Your task to perform on an android device: Search for macbook pro 15 inch on walmart, select the first entry, and add it to the cart. Image 0: 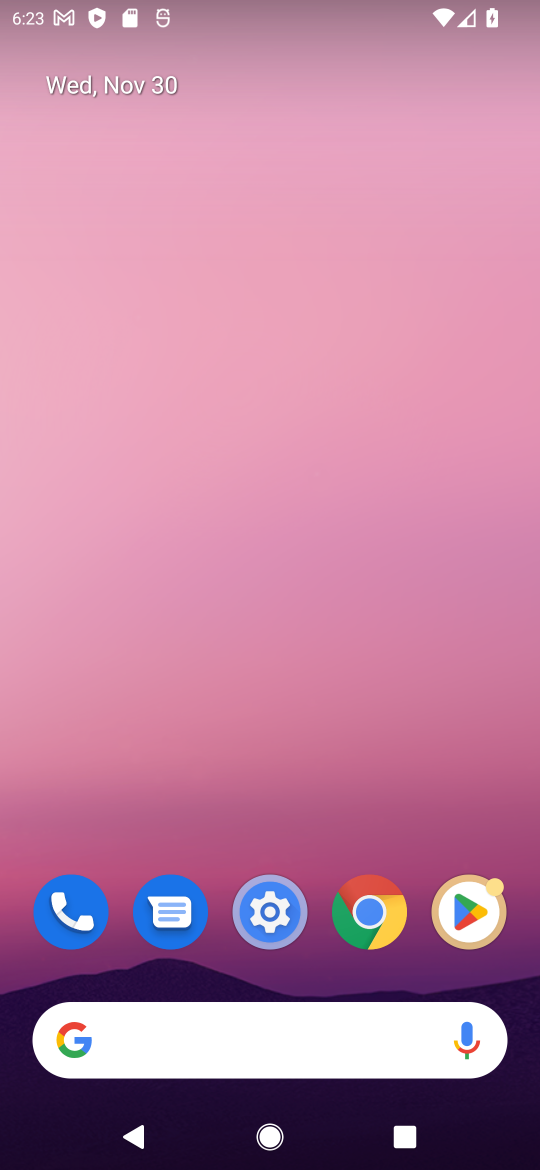
Step 0: click (247, 1026)
Your task to perform on an android device: Search for macbook pro 15 inch on walmart, select the first entry, and add it to the cart. Image 1: 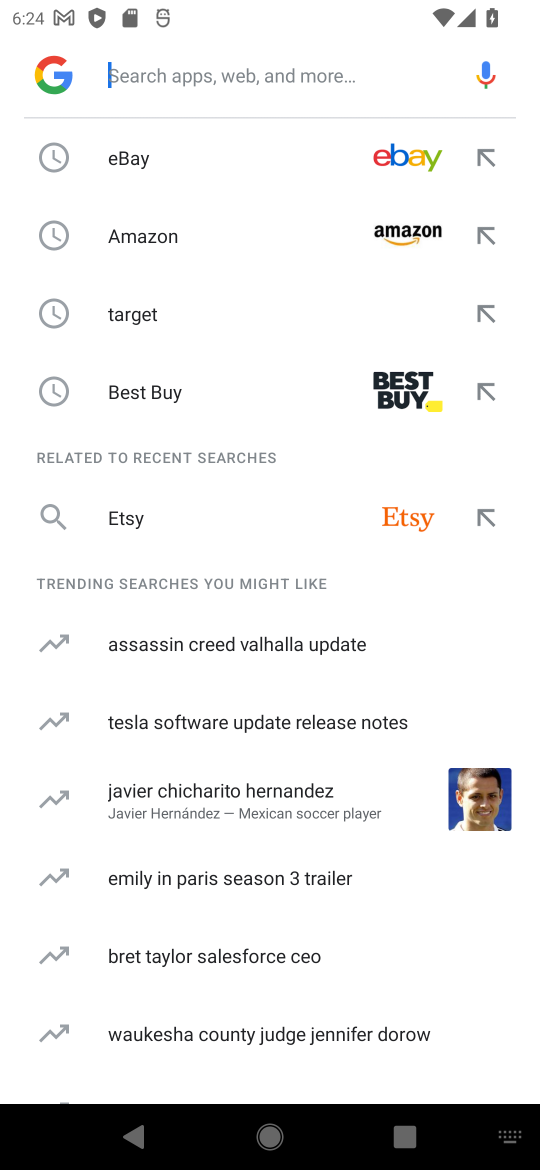
Step 1: type "walmart.com"
Your task to perform on an android device: Search for macbook pro 15 inch on walmart, select the first entry, and add it to the cart. Image 2: 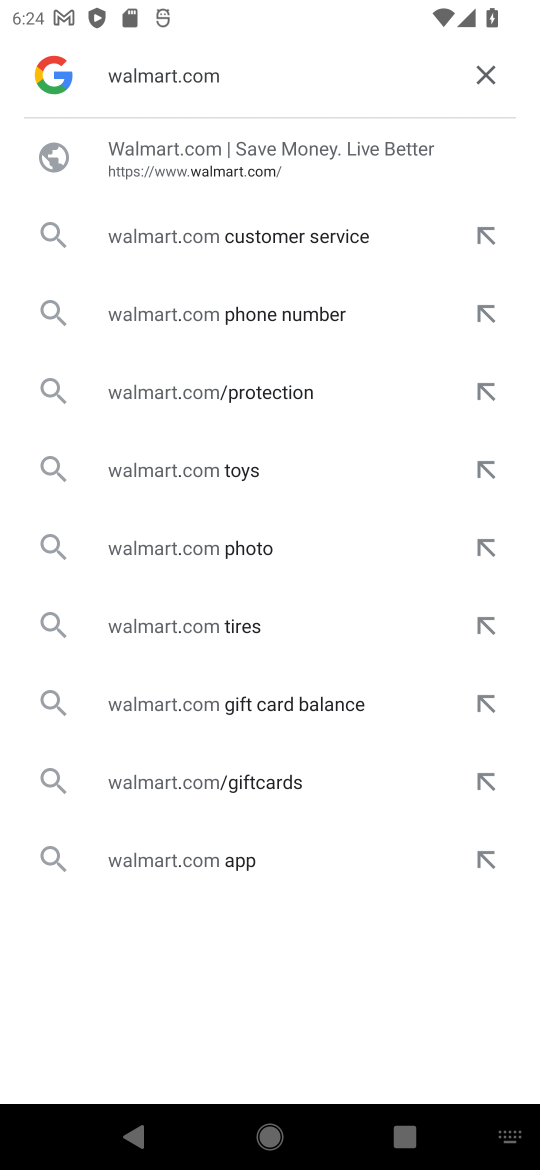
Step 2: click (214, 147)
Your task to perform on an android device: Search for macbook pro 15 inch on walmart, select the first entry, and add it to the cart. Image 3: 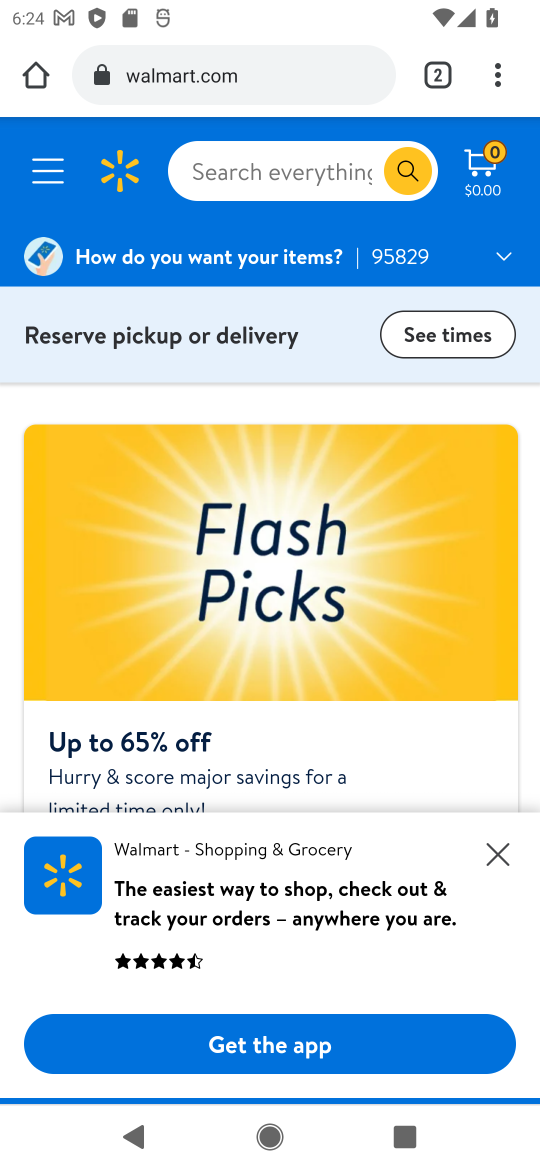
Step 3: click (319, 169)
Your task to perform on an android device: Search for macbook pro 15 inch on walmart, select the first entry, and add it to the cart. Image 4: 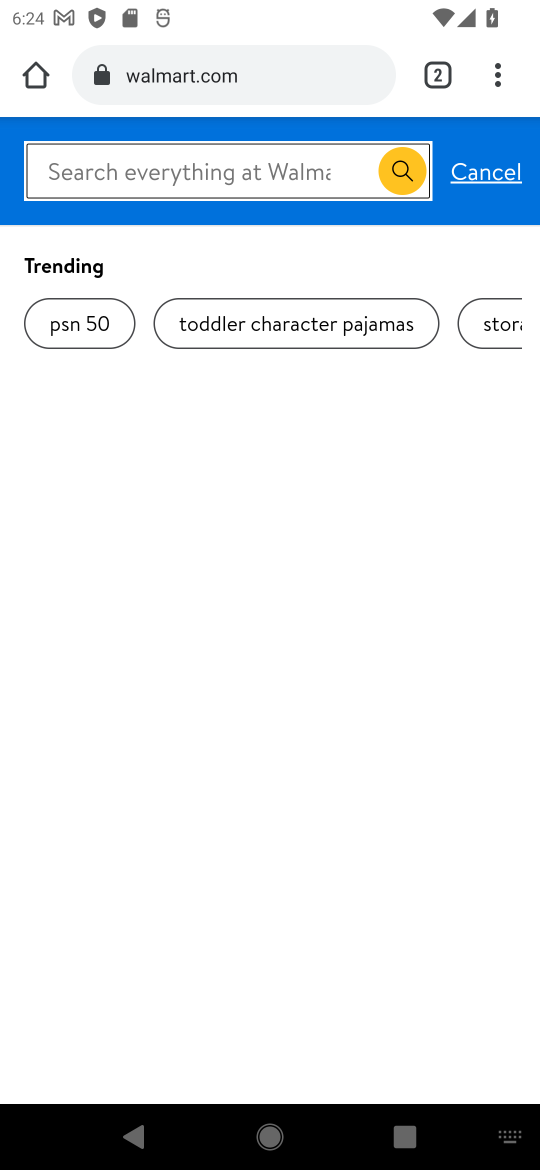
Step 4: type " macbook pro 15 inch"
Your task to perform on an android device: Search for macbook pro 15 inch on walmart, select the first entry, and add it to the cart. Image 5: 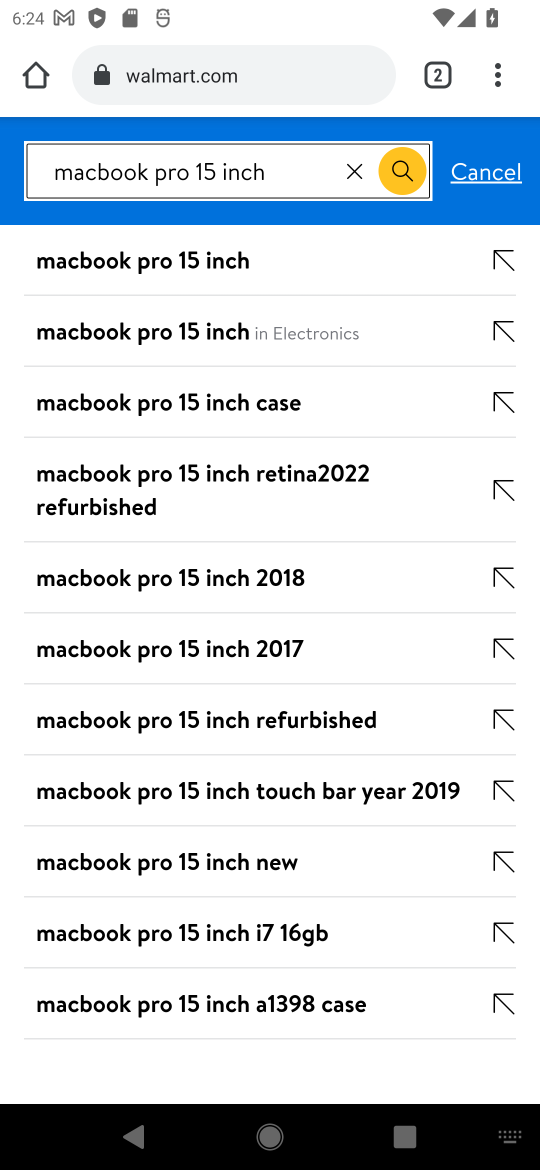
Step 5: click (250, 267)
Your task to perform on an android device: Search for macbook pro 15 inch on walmart, select the first entry, and add it to the cart. Image 6: 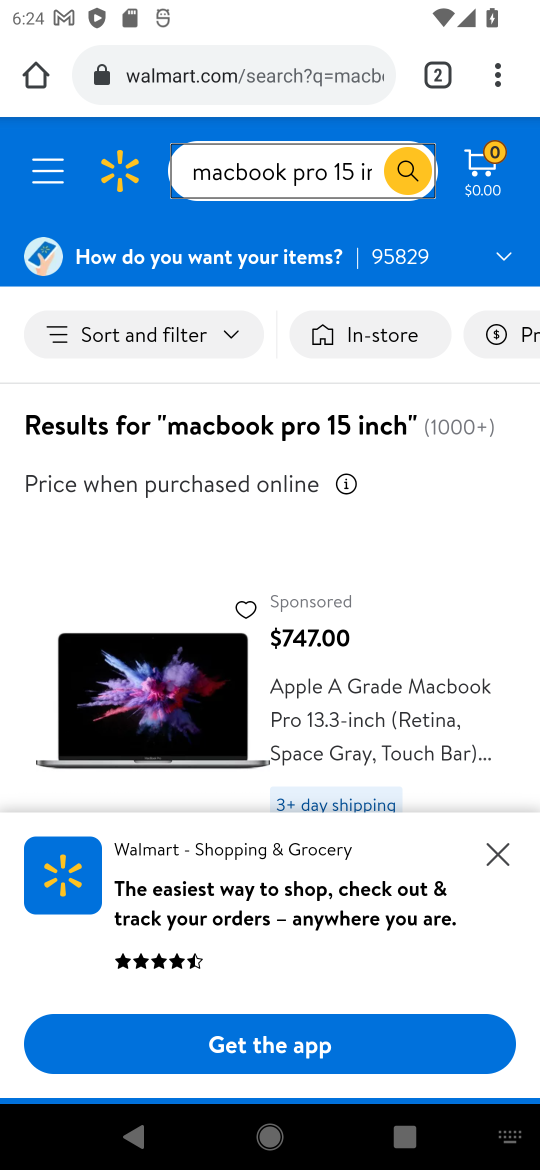
Step 6: click (501, 839)
Your task to perform on an android device: Search for macbook pro 15 inch on walmart, select the first entry, and add it to the cart. Image 7: 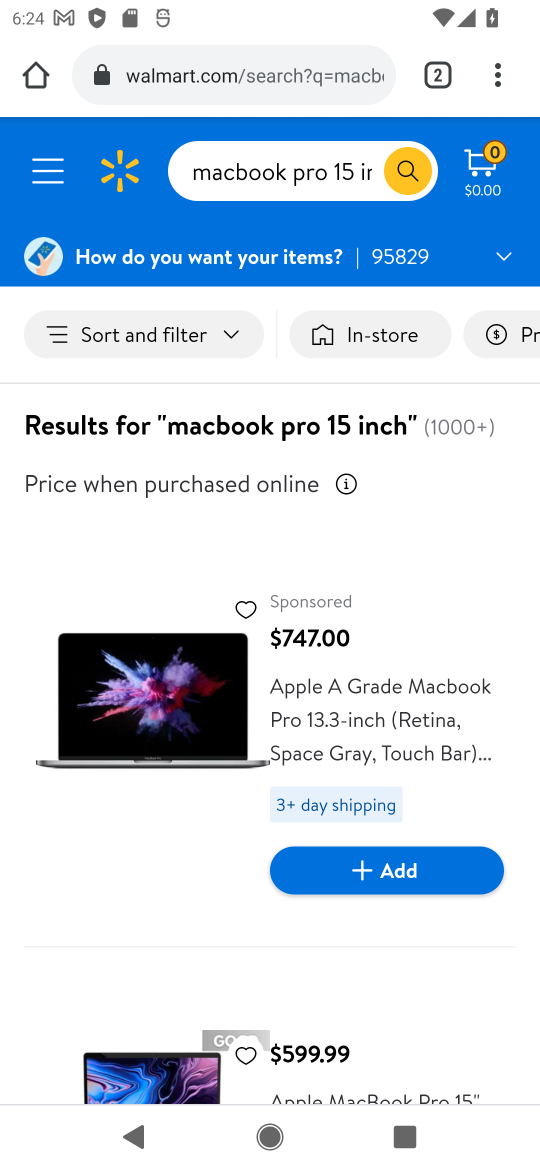
Step 7: click (335, 877)
Your task to perform on an android device: Search for macbook pro 15 inch on walmart, select the first entry, and add it to the cart. Image 8: 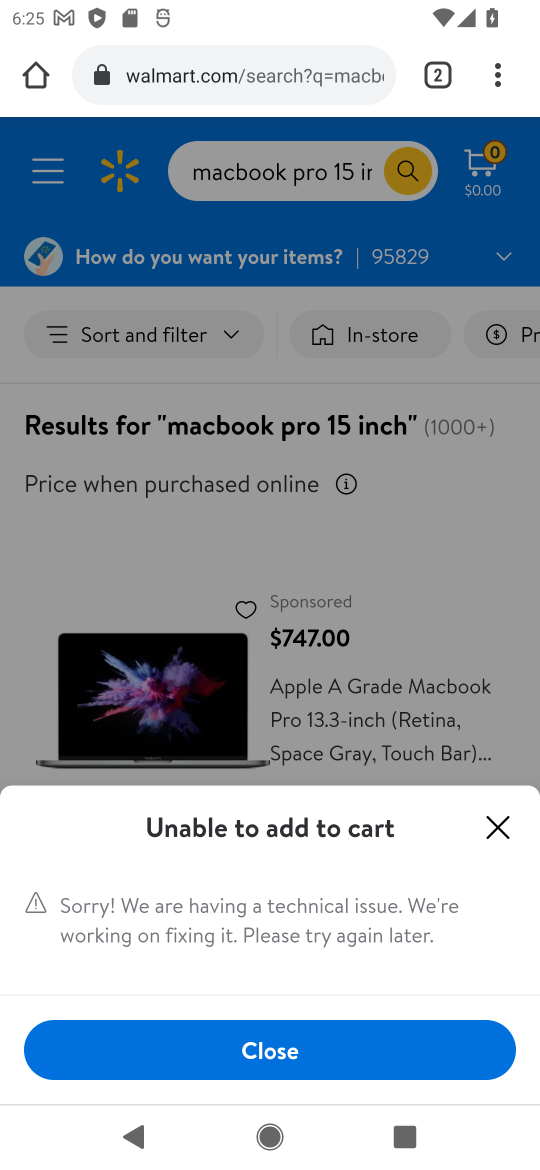
Step 8: task complete